Your task to perform on an android device: Open accessibility settings Image 0: 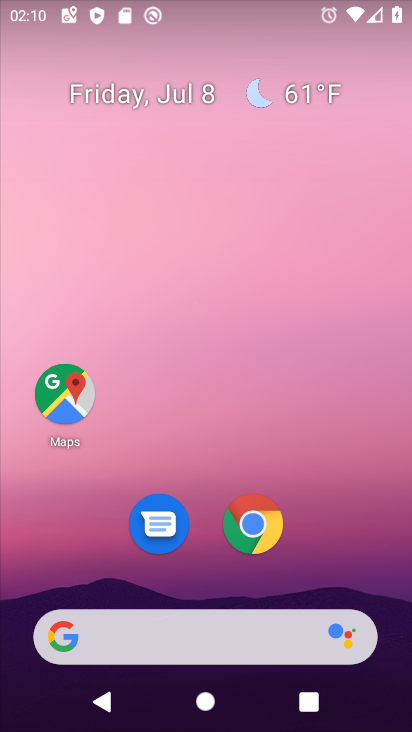
Step 0: drag from (339, 539) to (281, 32)
Your task to perform on an android device: Open accessibility settings Image 1: 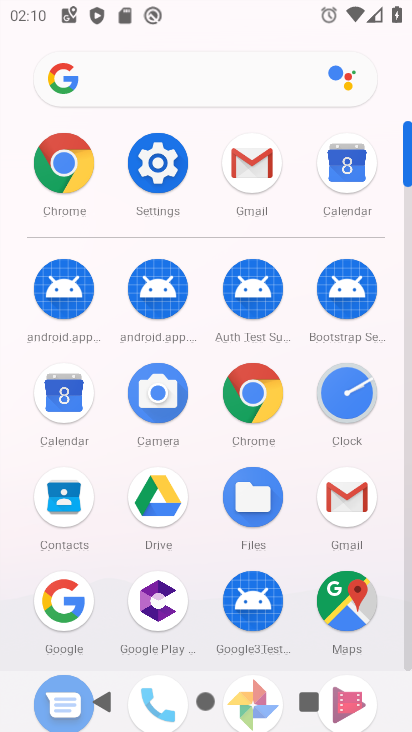
Step 1: click (174, 155)
Your task to perform on an android device: Open accessibility settings Image 2: 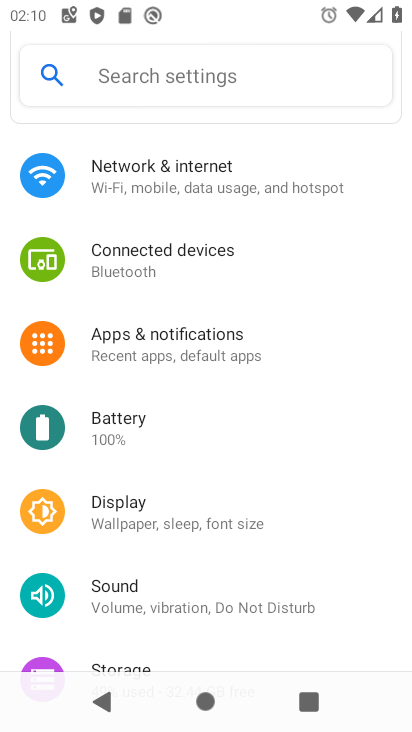
Step 2: drag from (206, 484) to (248, 77)
Your task to perform on an android device: Open accessibility settings Image 3: 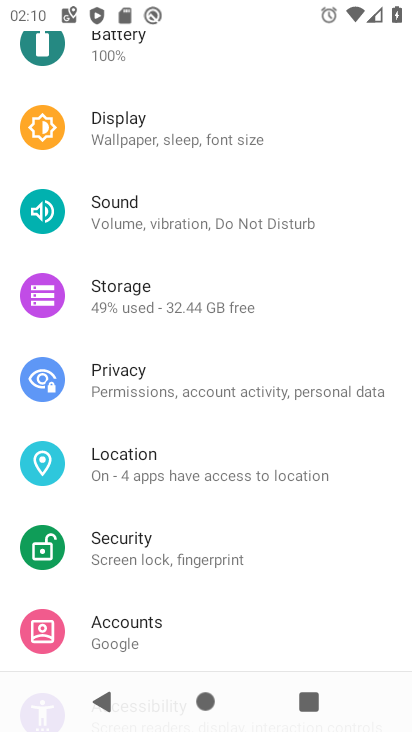
Step 3: drag from (239, 520) to (265, 167)
Your task to perform on an android device: Open accessibility settings Image 4: 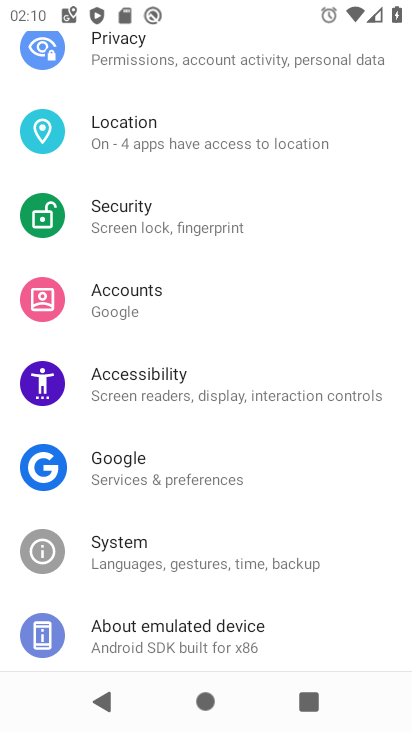
Step 4: click (220, 381)
Your task to perform on an android device: Open accessibility settings Image 5: 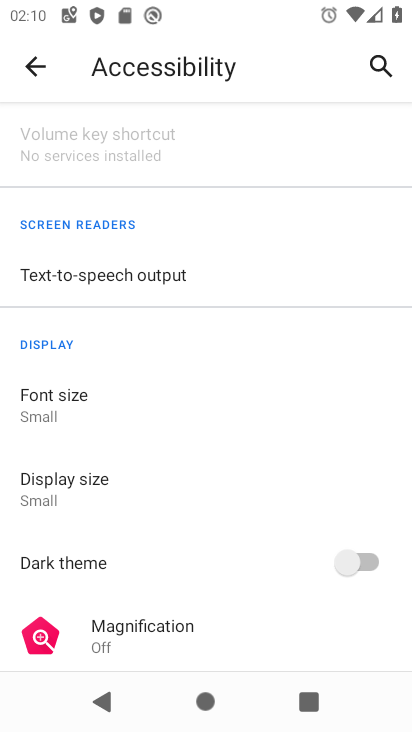
Step 5: task complete